Your task to perform on an android device: What's a good restaurant in Miami? Image 0: 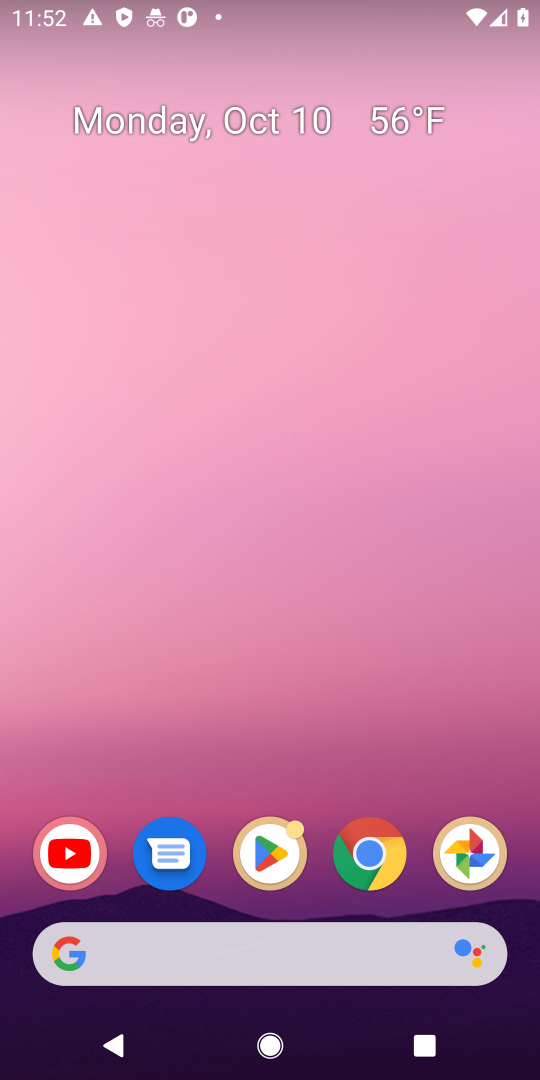
Step 0: drag from (298, 784) to (519, 754)
Your task to perform on an android device: What's a good restaurant in Miami? Image 1: 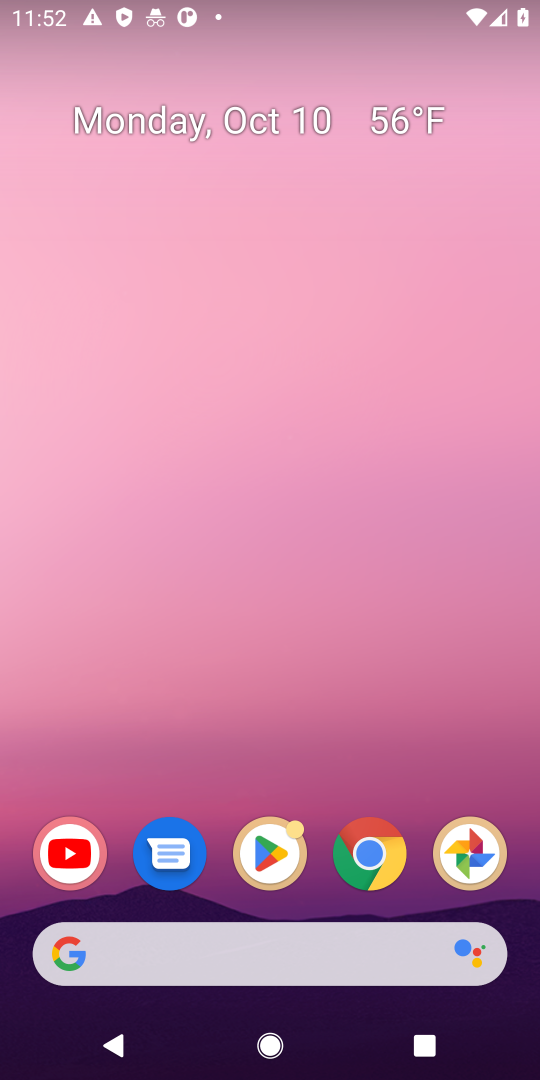
Step 1: click (383, 849)
Your task to perform on an android device: What's a good restaurant in Miami? Image 2: 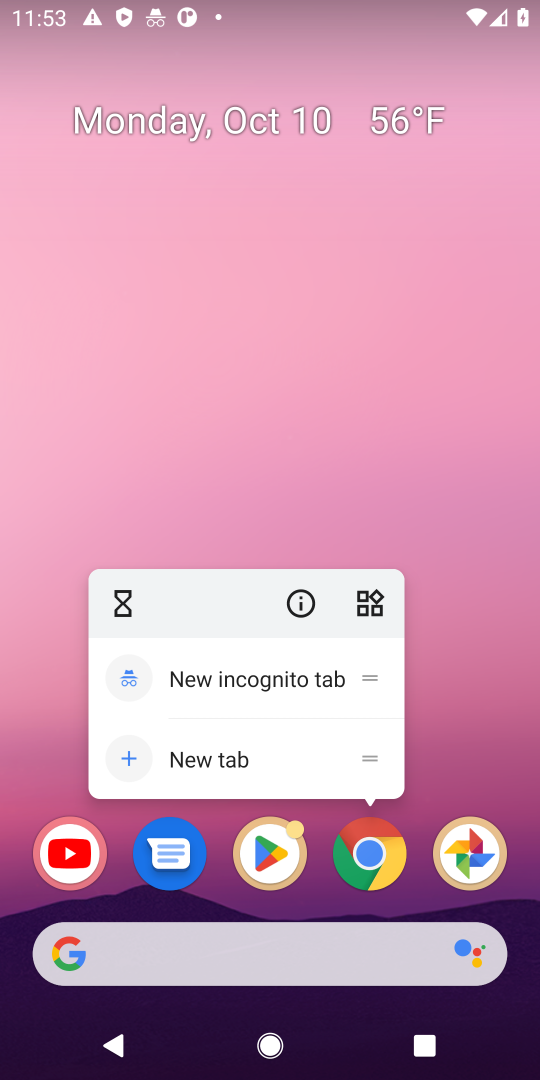
Step 2: click (375, 856)
Your task to perform on an android device: What's a good restaurant in Miami? Image 3: 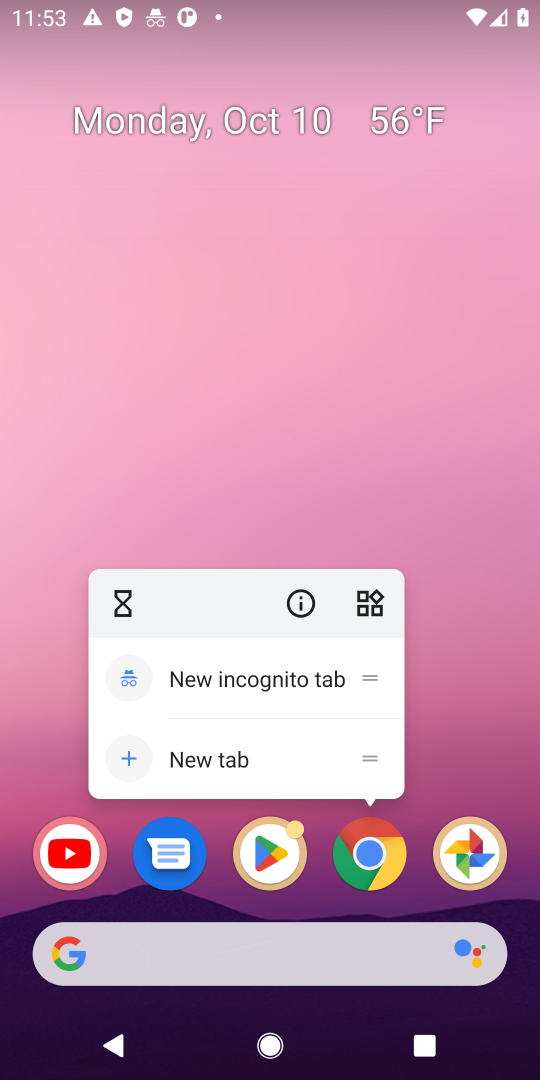
Step 3: click (375, 856)
Your task to perform on an android device: What's a good restaurant in Miami? Image 4: 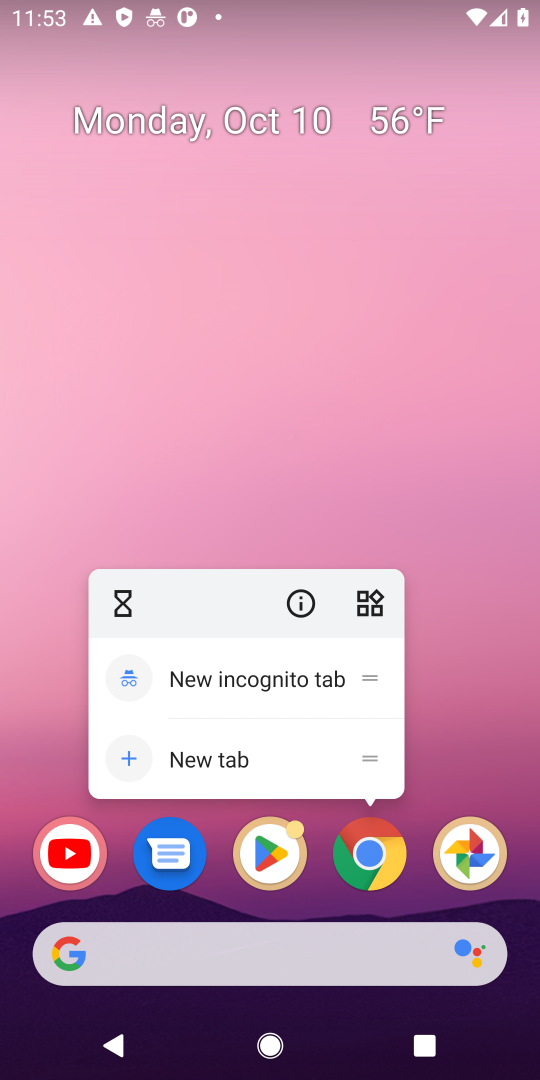
Step 4: click (375, 856)
Your task to perform on an android device: What's a good restaurant in Miami? Image 5: 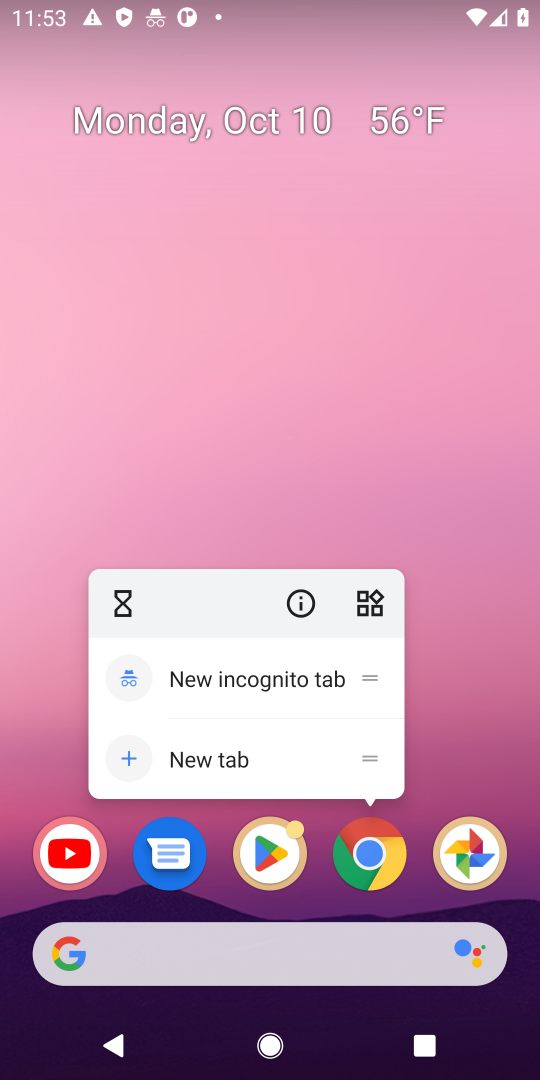
Step 5: click (426, 776)
Your task to perform on an android device: What's a good restaurant in Miami? Image 6: 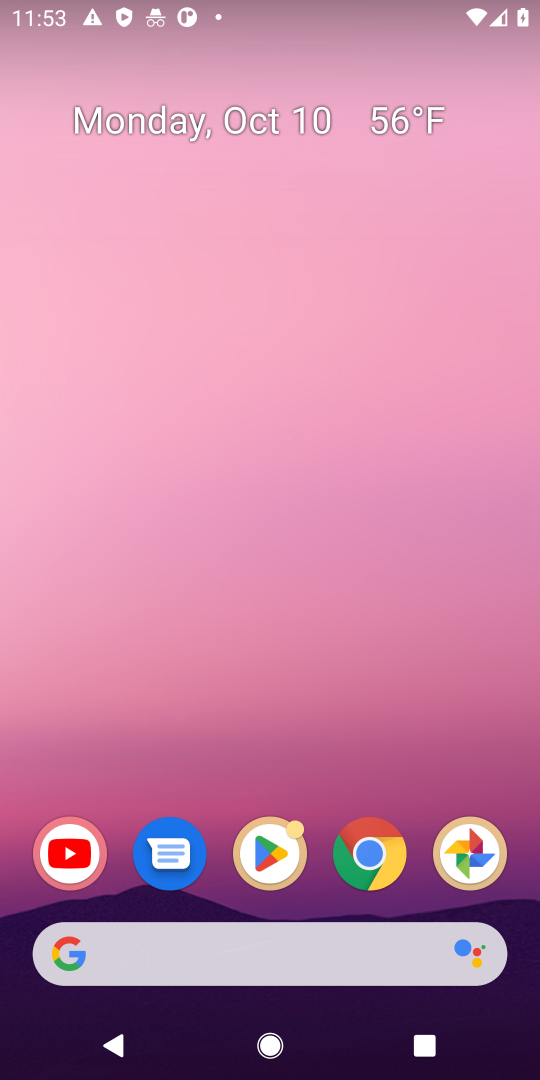
Step 6: drag from (422, 799) to (419, 40)
Your task to perform on an android device: What's a good restaurant in Miami? Image 7: 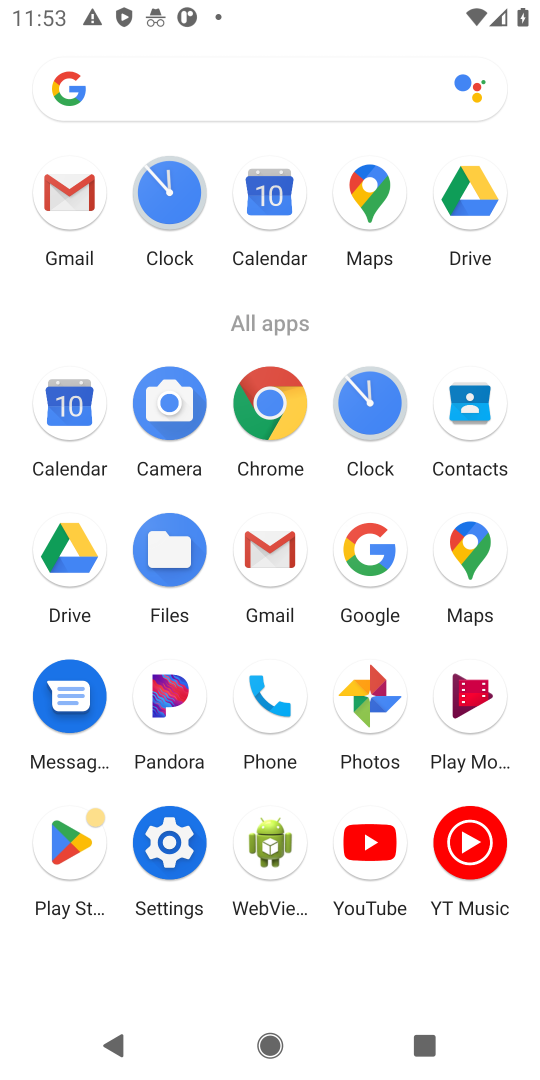
Step 7: click (274, 387)
Your task to perform on an android device: What's a good restaurant in Miami? Image 8: 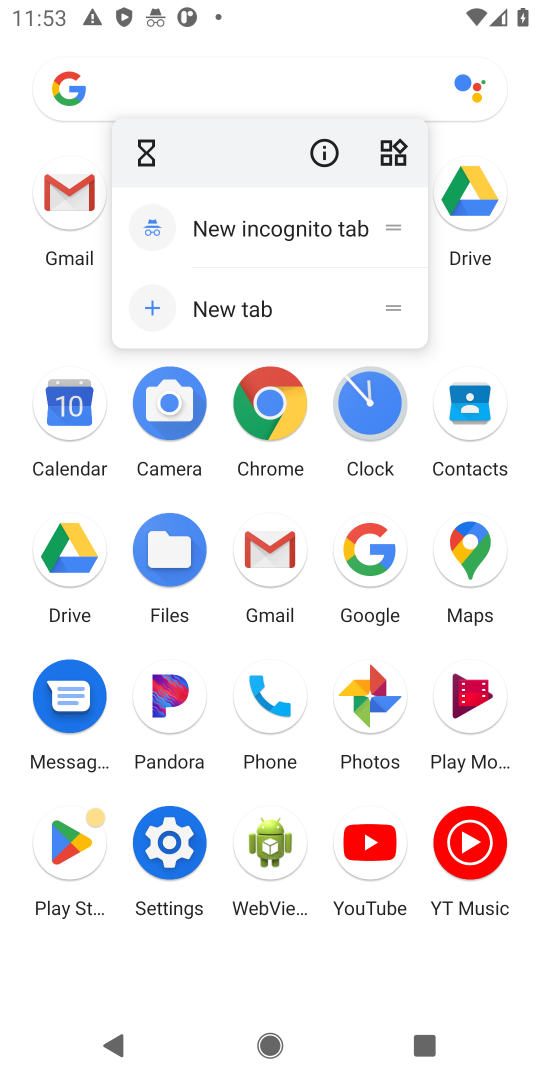
Step 8: click (273, 418)
Your task to perform on an android device: What's a good restaurant in Miami? Image 9: 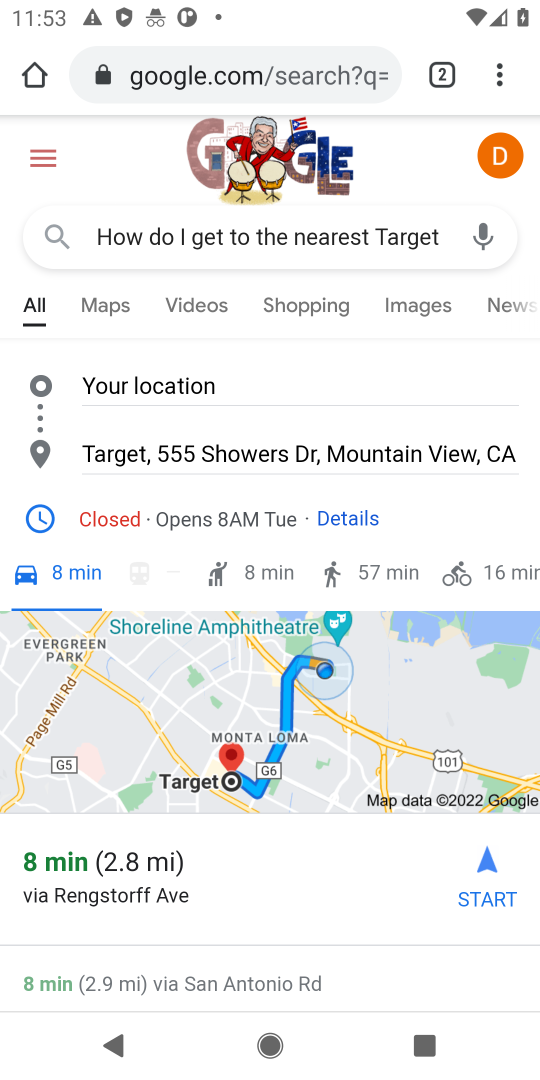
Step 9: click (274, 81)
Your task to perform on an android device: What's a good restaurant in Miami? Image 10: 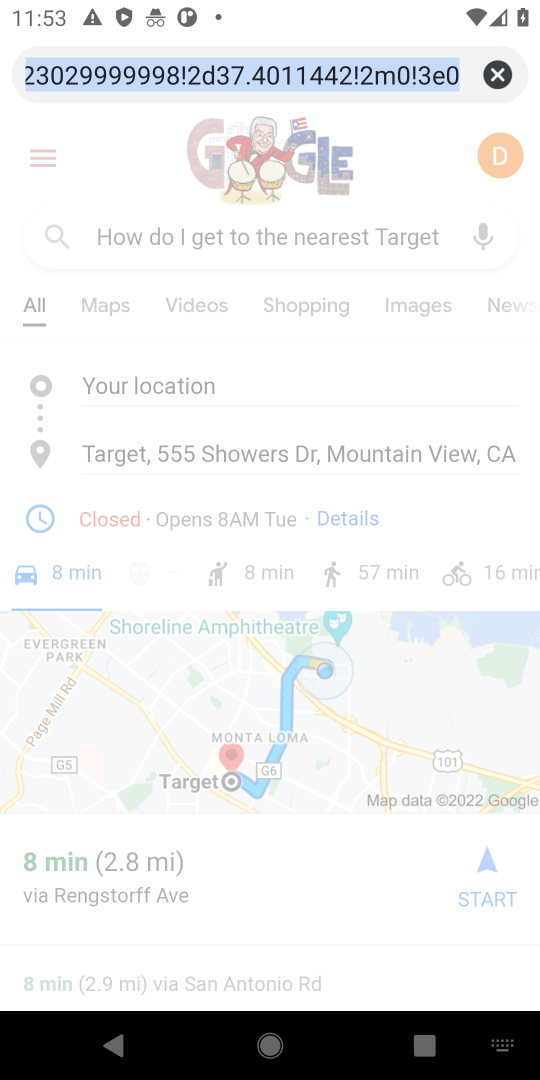
Step 10: click (508, 77)
Your task to perform on an android device: What's a good restaurant in Miami? Image 11: 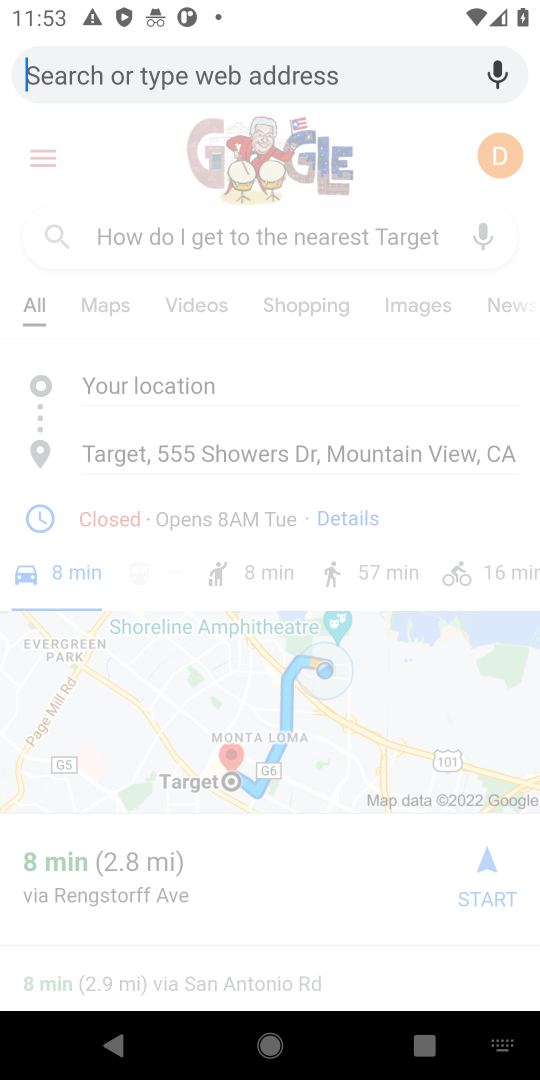
Step 11: type "What's a good restaurant in Miami?"
Your task to perform on an android device: What's a good restaurant in Miami? Image 12: 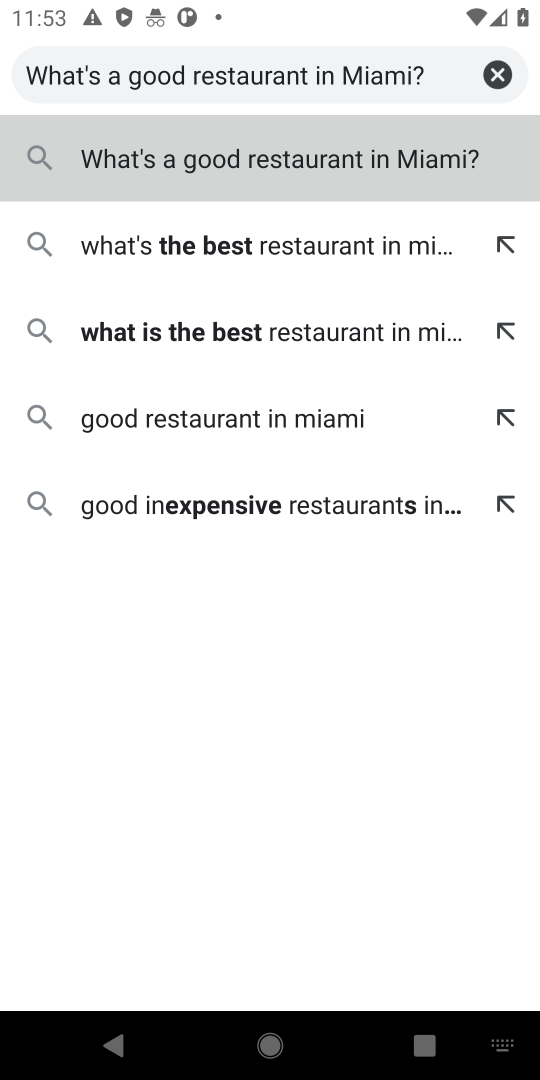
Step 12: click (368, 158)
Your task to perform on an android device: What's a good restaurant in Miami? Image 13: 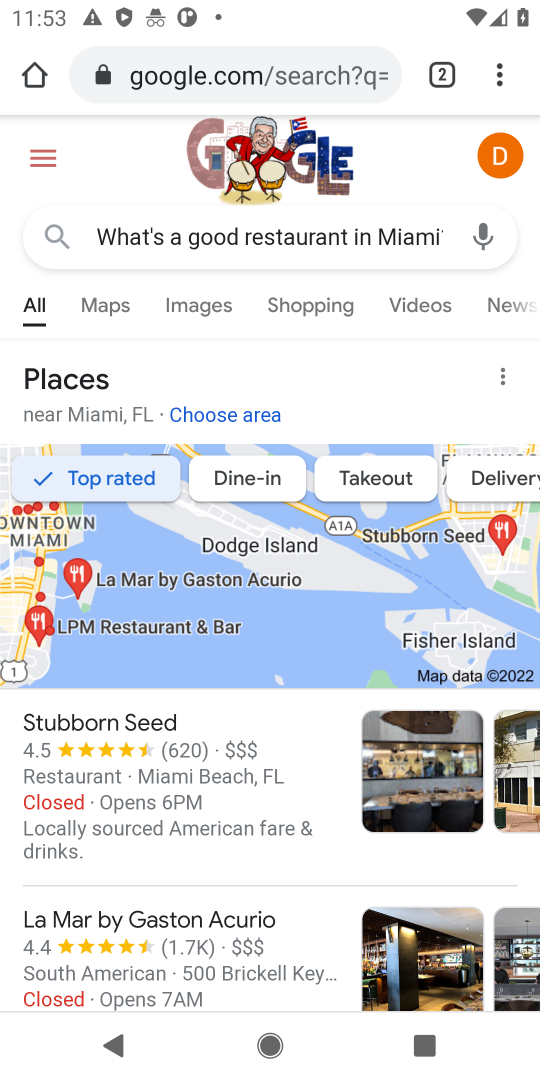
Step 13: task complete